Your task to perform on an android device: check google app version Image 0: 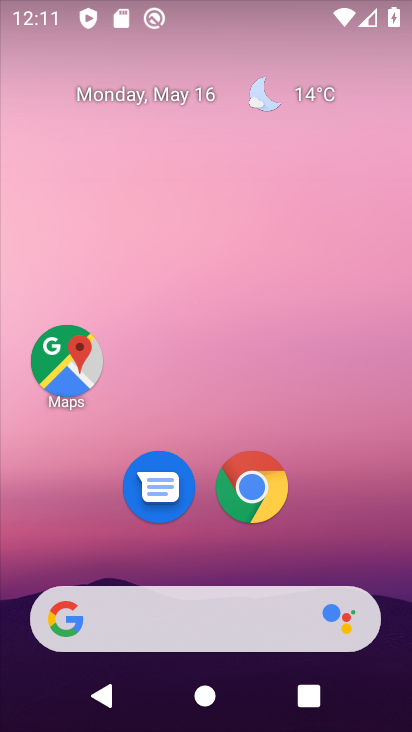
Step 0: press home button
Your task to perform on an android device: check google app version Image 1: 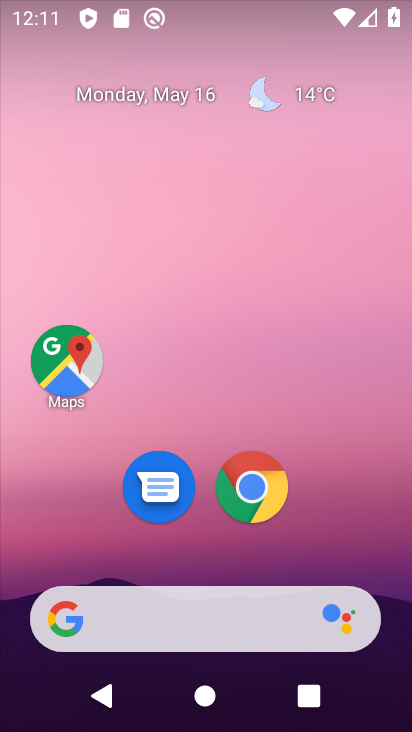
Step 1: drag from (120, 618) to (308, 250)
Your task to perform on an android device: check google app version Image 2: 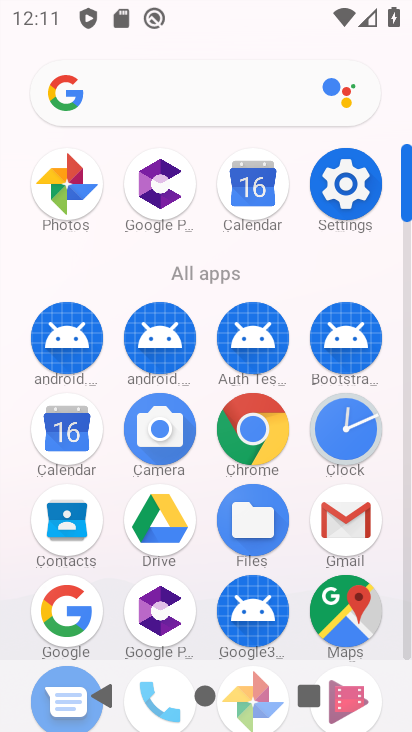
Step 2: click (80, 614)
Your task to perform on an android device: check google app version Image 3: 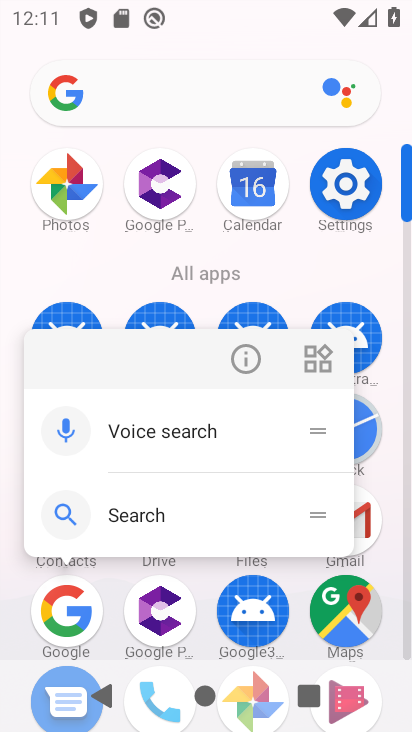
Step 3: click (252, 362)
Your task to perform on an android device: check google app version Image 4: 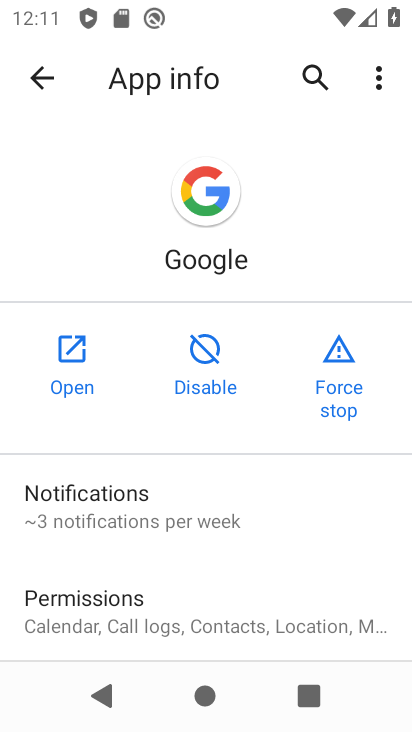
Step 4: drag from (139, 571) to (403, 115)
Your task to perform on an android device: check google app version Image 5: 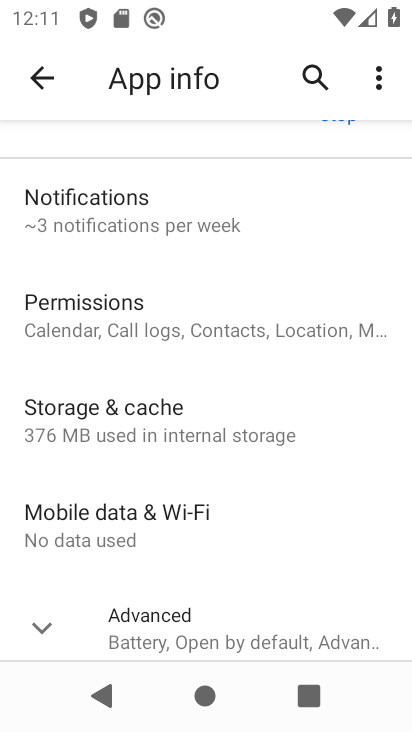
Step 5: click (105, 625)
Your task to perform on an android device: check google app version Image 6: 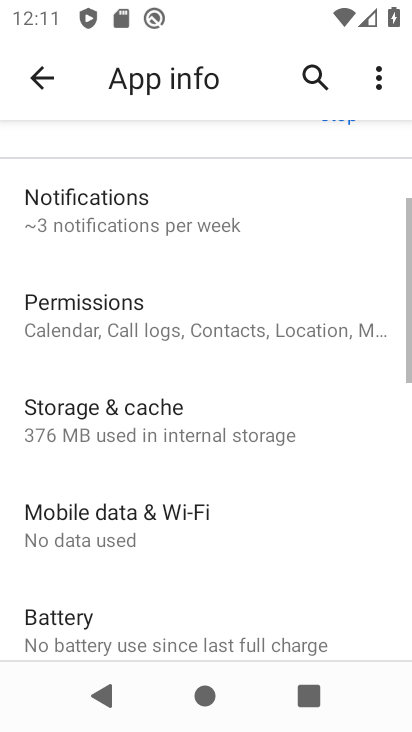
Step 6: task complete